Your task to perform on an android device: turn vacation reply on in the gmail app Image 0: 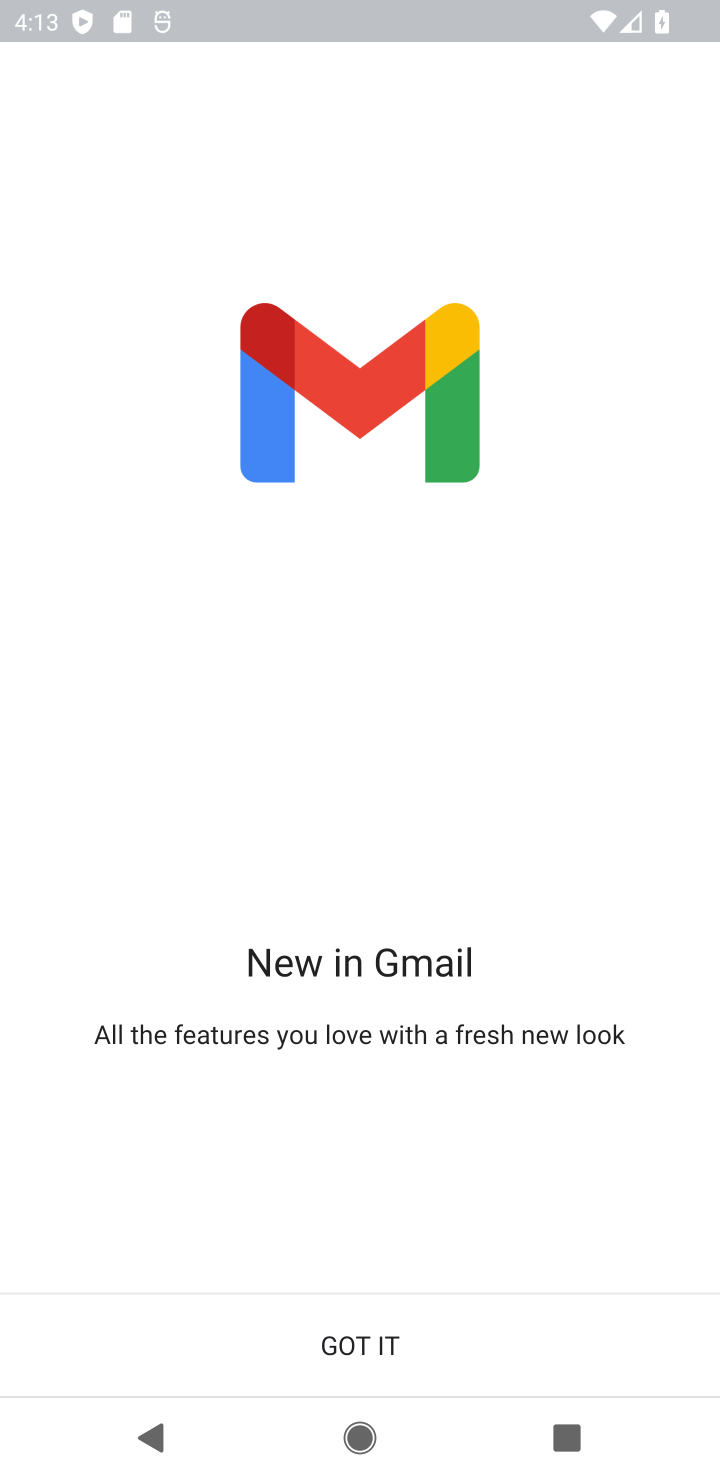
Step 0: press home button
Your task to perform on an android device: turn vacation reply on in the gmail app Image 1: 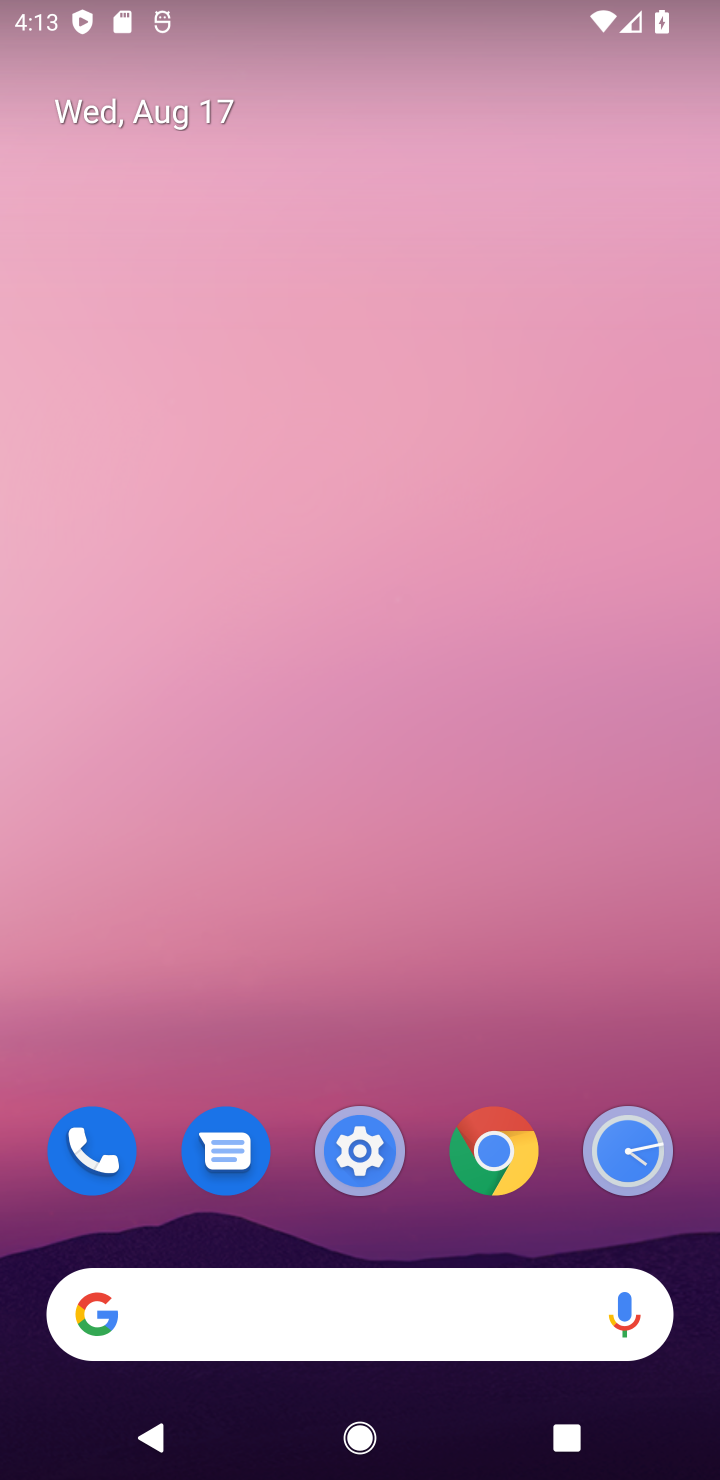
Step 1: click (366, 1178)
Your task to perform on an android device: turn vacation reply on in the gmail app Image 2: 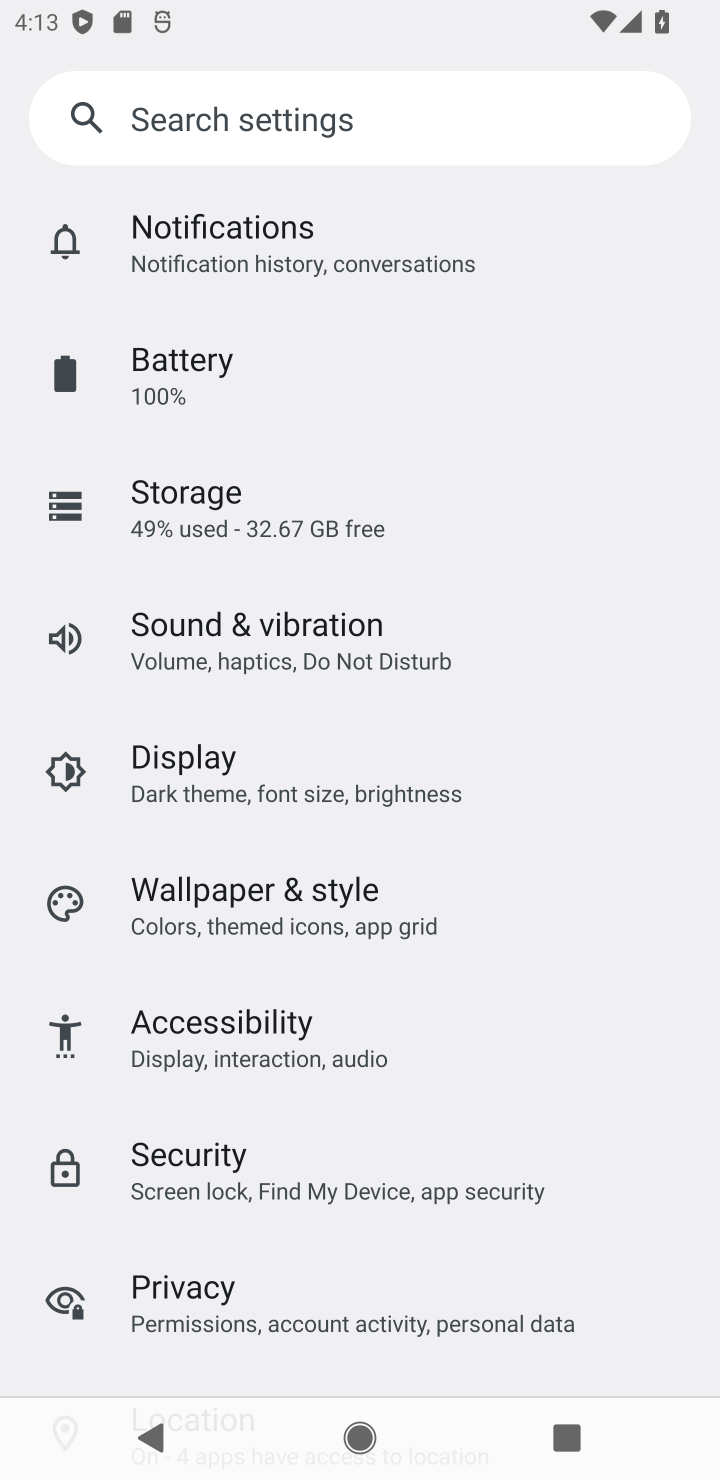
Step 2: press home button
Your task to perform on an android device: turn vacation reply on in the gmail app Image 3: 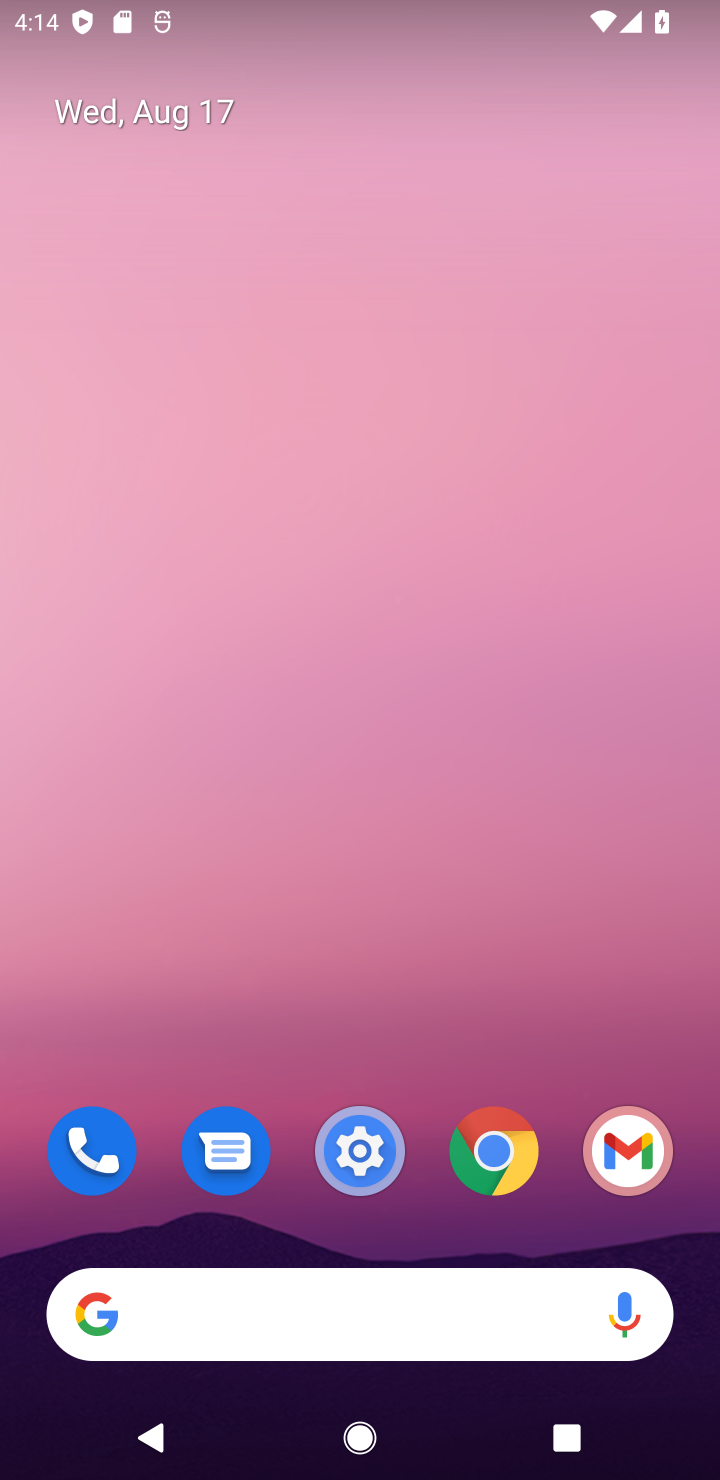
Step 3: click (636, 1164)
Your task to perform on an android device: turn vacation reply on in the gmail app Image 4: 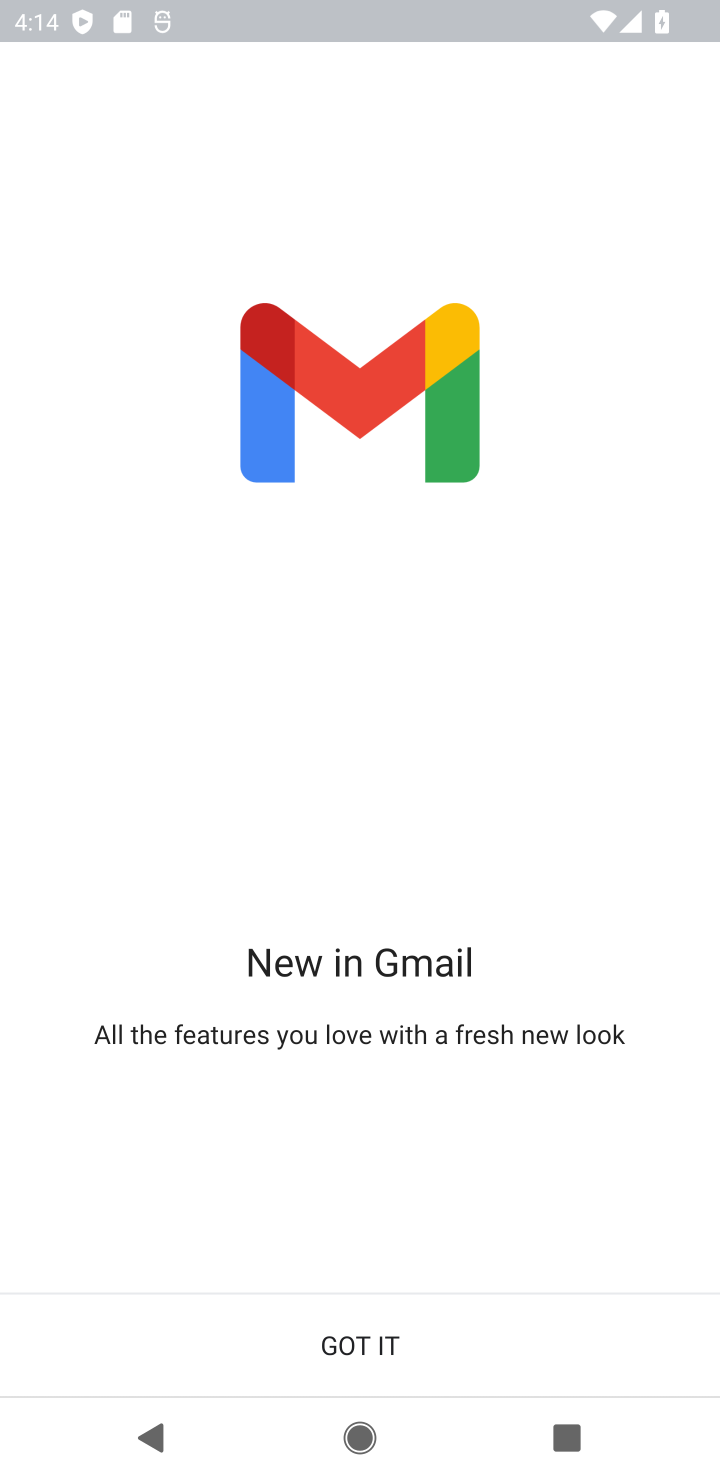
Step 4: click (415, 1348)
Your task to perform on an android device: turn vacation reply on in the gmail app Image 5: 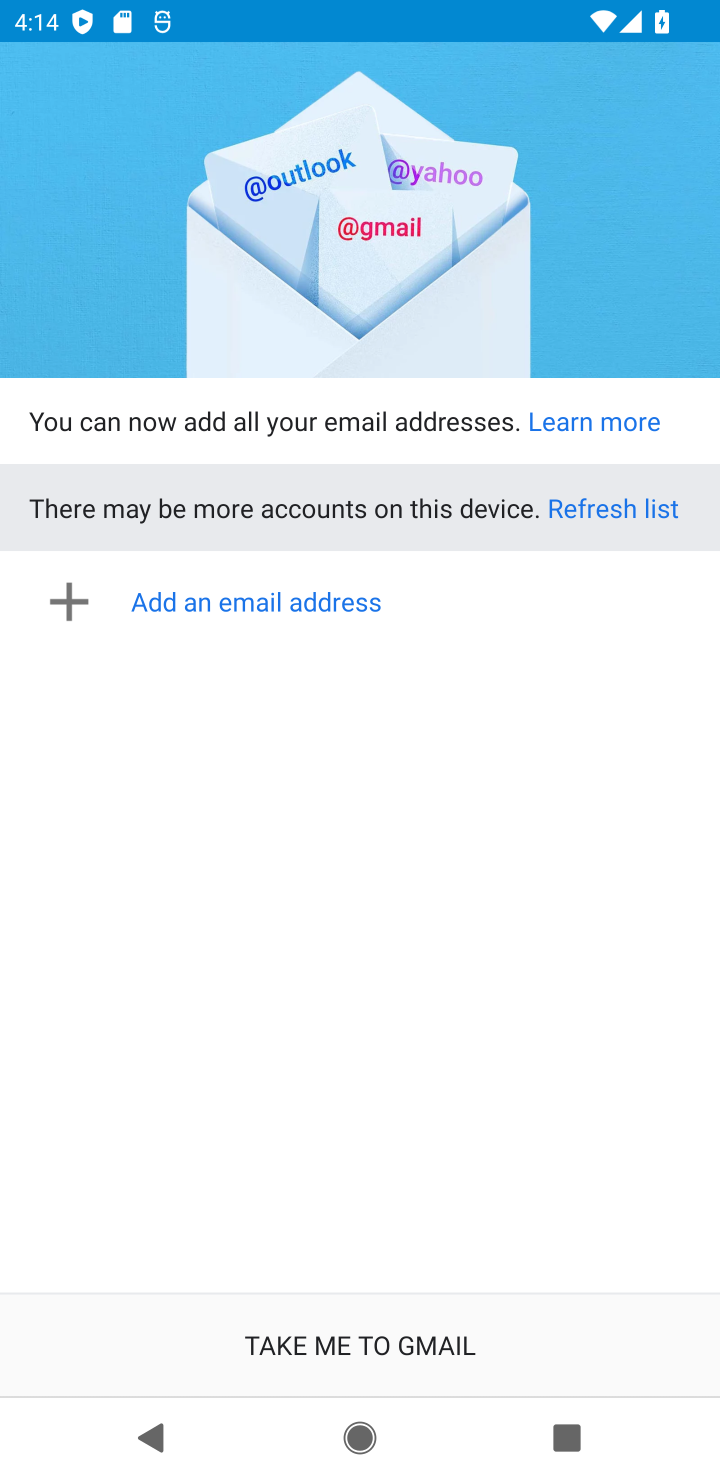
Step 5: click (415, 1348)
Your task to perform on an android device: turn vacation reply on in the gmail app Image 6: 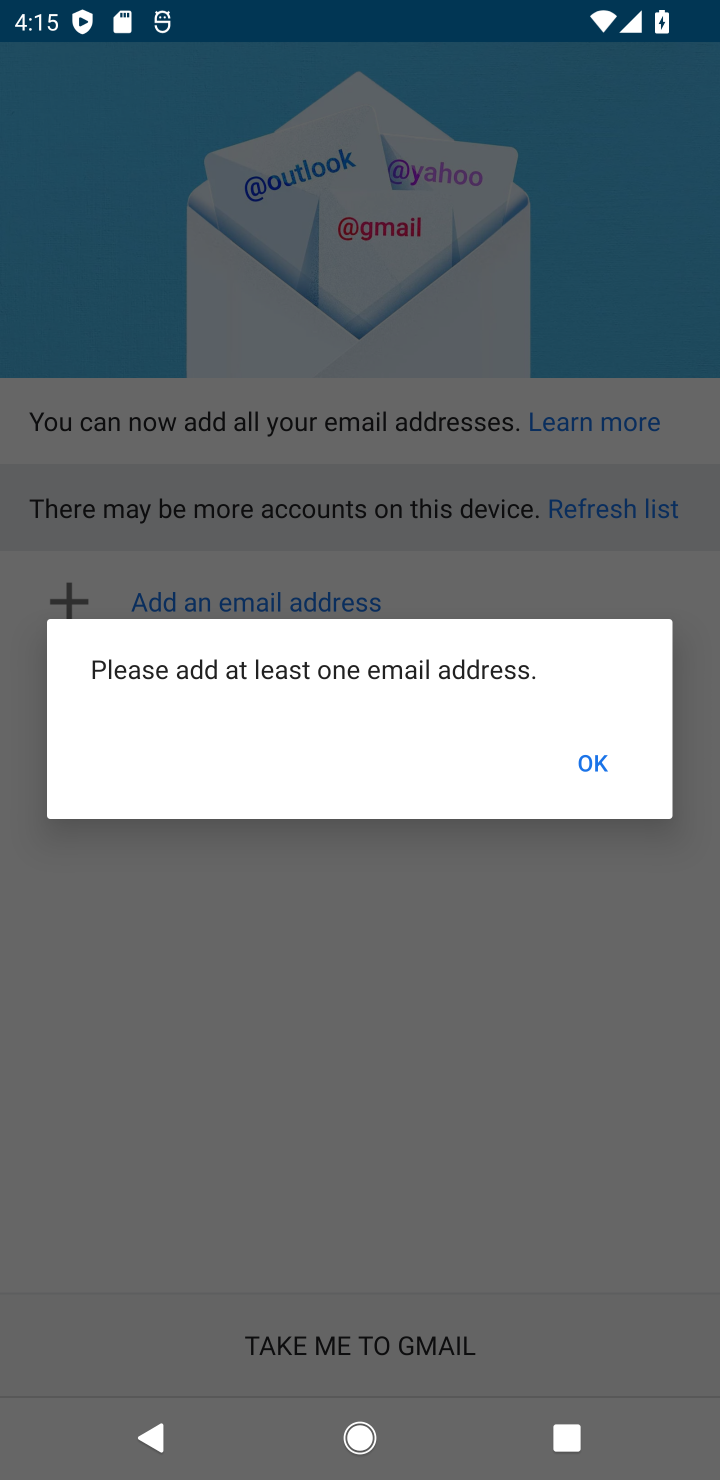
Step 6: task complete